Your task to perform on an android device: turn on the 24-hour format for clock Image 0: 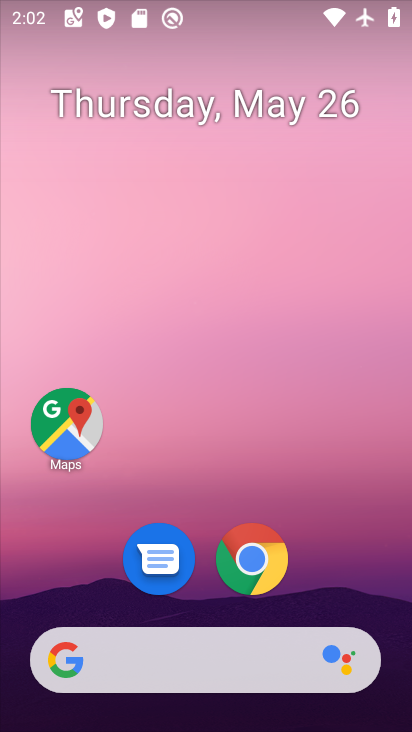
Step 0: press home button
Your task to perform on an android device: turn on the 24-hour format for clock Image 1: 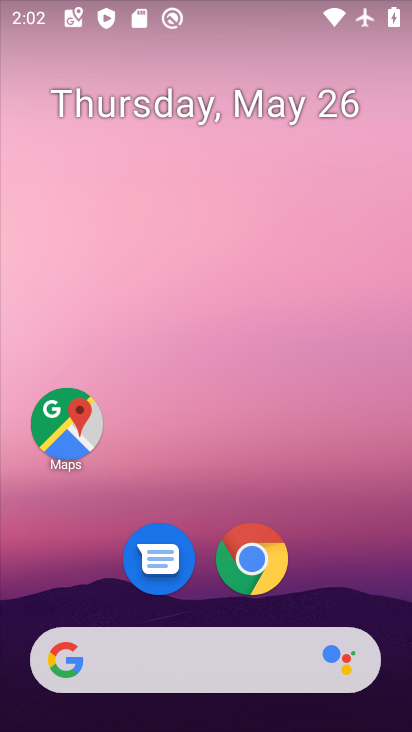
Step 1: drag from (199, 663) to (367, 24)
Your task to perform on an android device: turn on the 24-hour format for clock Image 2: 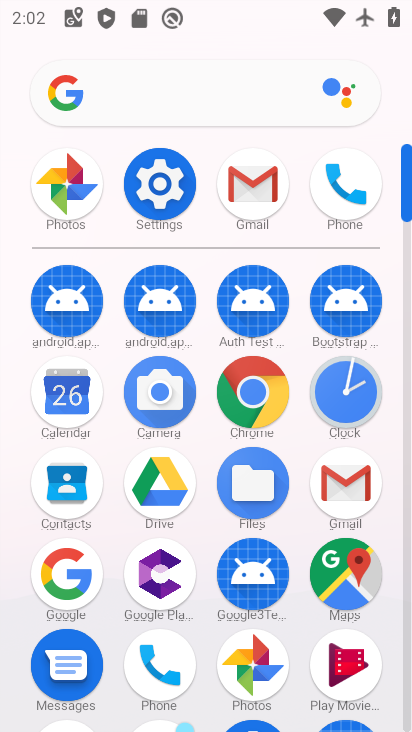
Step 2: click (342, 392)
Your task to perform on an android device: turn on the 24-hour format for clock Image 3: 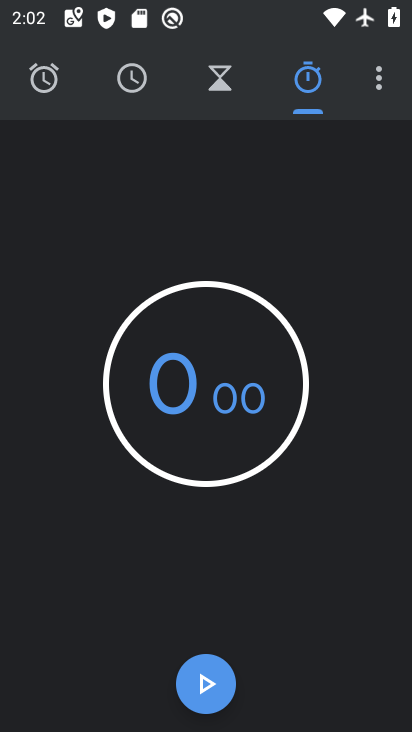
Step 3: click (376, 80)
Your task to perform on an android device: turn on the 24-hour format for clock Image 4: 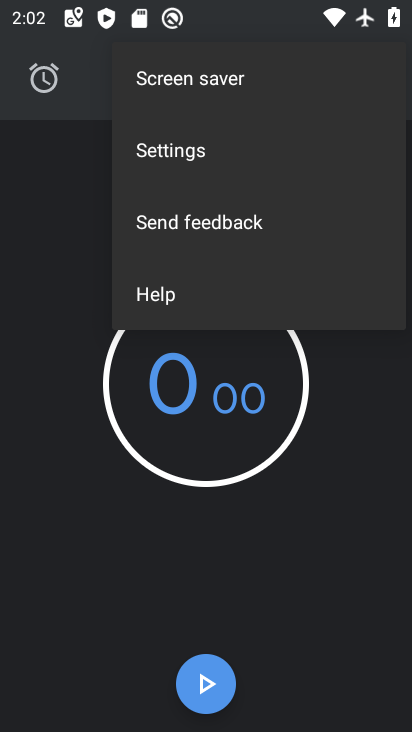
Step 4: click (196, 164)
Your task to perform on an android device: turn on the 24-hour format for clock Image 5: 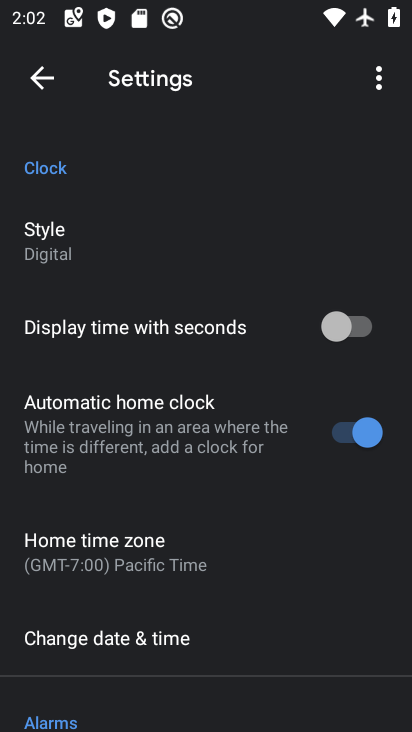
Step 5: click (159, 630)
Your task to perform on an android device: turn on the 24-hour format for clock Image 6: 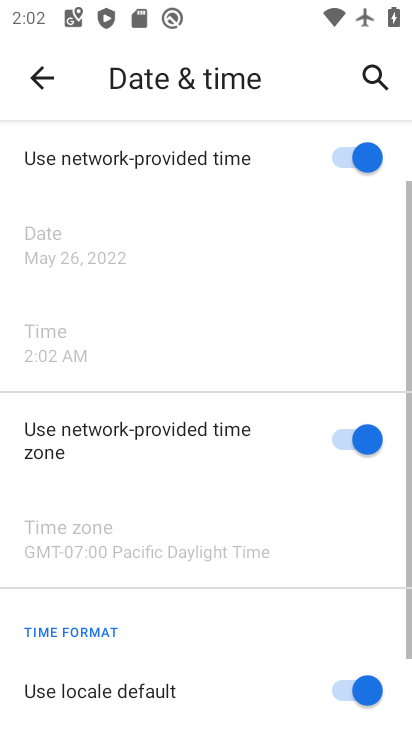
Step 6: drag from (204, 608) to (306, 98)
Your task to perform on an android device: turn on the 24-hour format for clock Image 7: 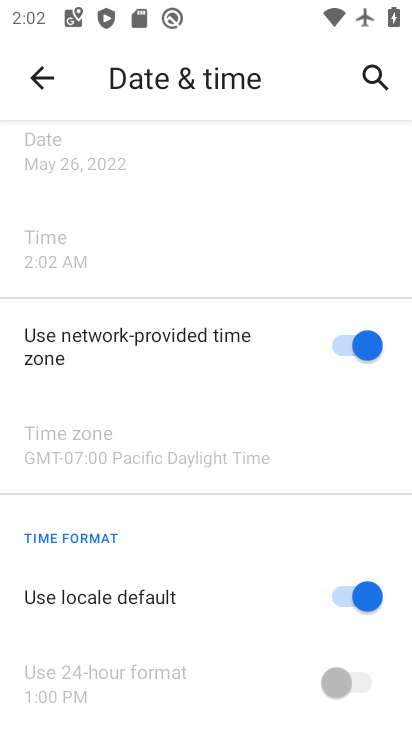
Step 7: click (356, 676)
Your task to perform on an android device: turn on the 24-hour format for clock Image 8: 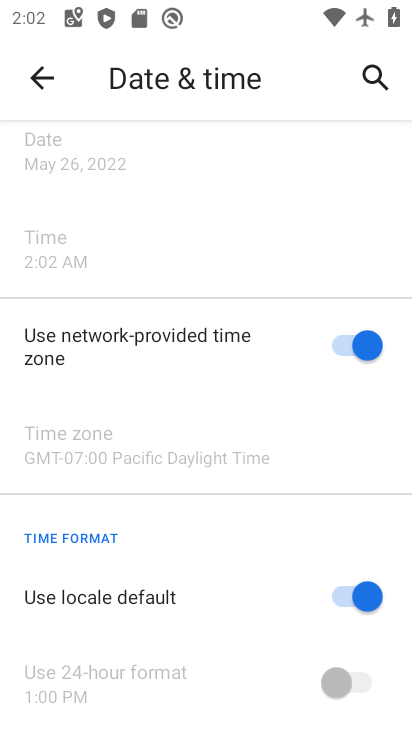
Step 8: click (342, 588)
Your task to perform on an android device: turn on the 24-hour format for clock Image 9: 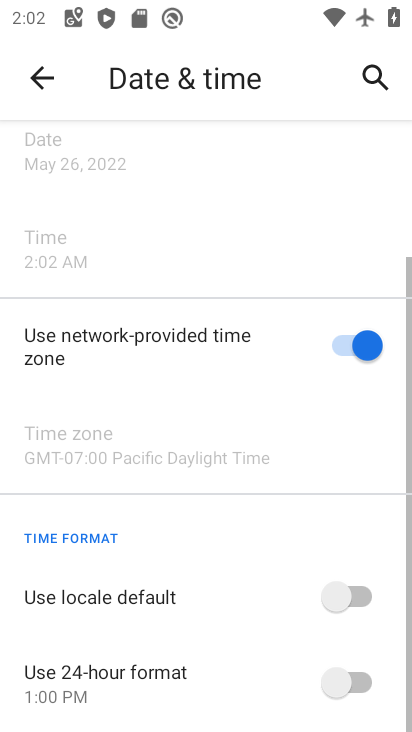
Step 9: click (358, 680)
Your task to perform on an android device: turn on the 24-hour format for clock Image 10: 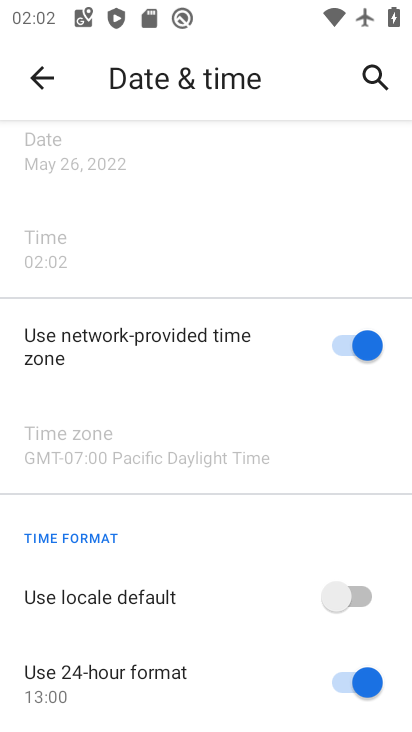
Step 10: task complete